Your task to perform on an android device: clear history in the chrome app Image 0: 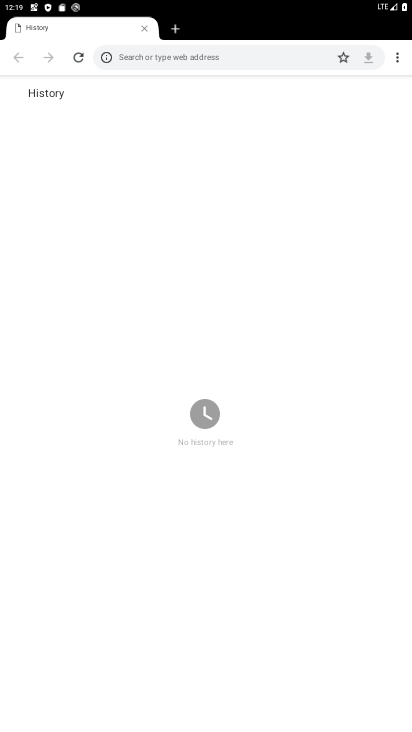
Step 0: click (395, 58)
Your task to perform on an android device: clear history in the chrome app Image 1: 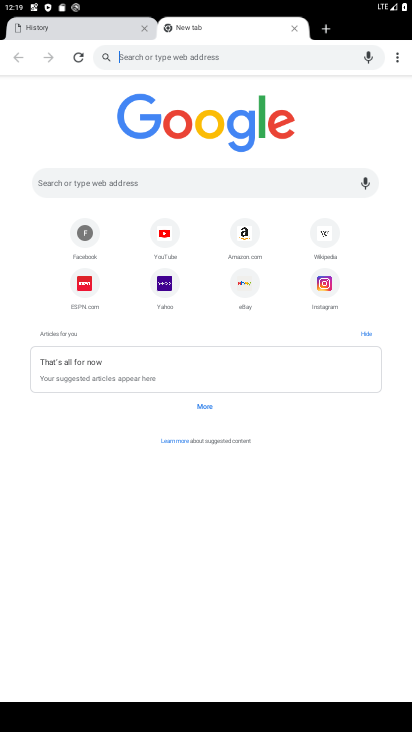
Step 1: click (397, 59)
Your task to perform on an android device: clear history in the chrome app Image 2: 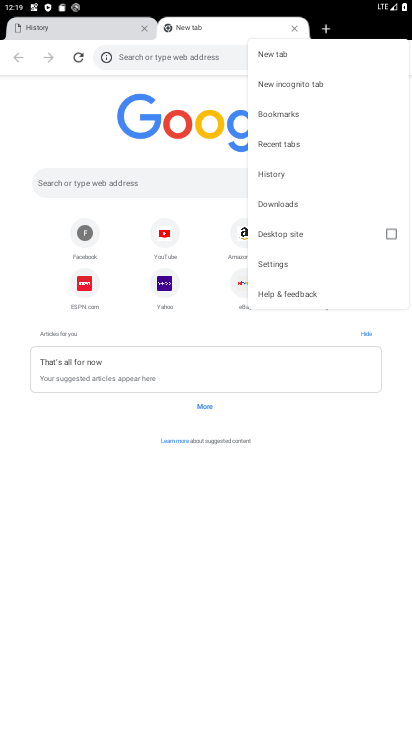
Step 2: click (287, 172)
Your task to perform on an android device: clear history in the chrome app Image 3: 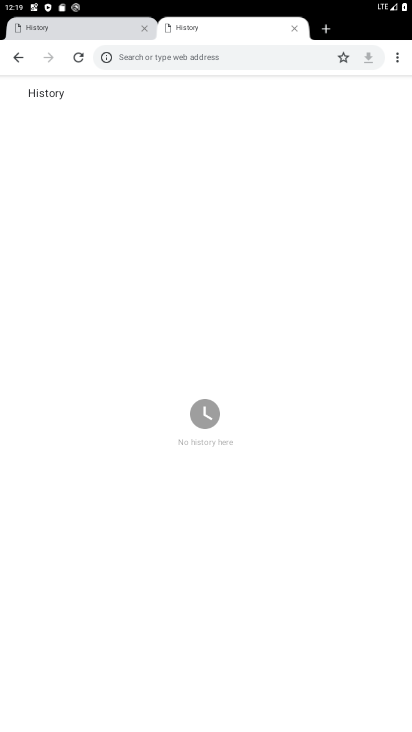
Step 3: click (147, 29)
Your task to perform on an android device: clear history in the chrome app Image 4: 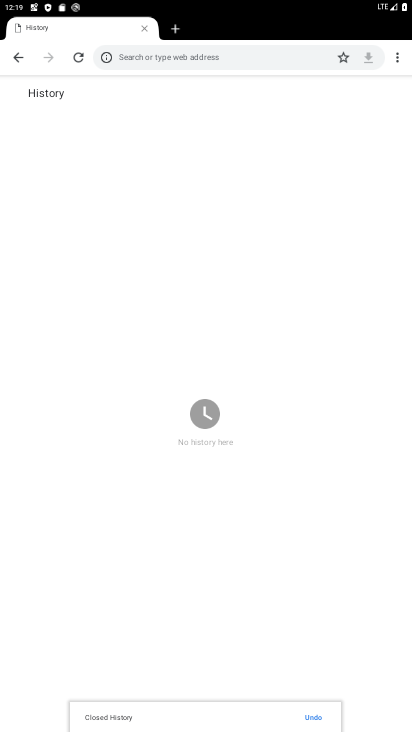
Step 4: task complete